Your task to perform on an android device: Open Google Image 0: 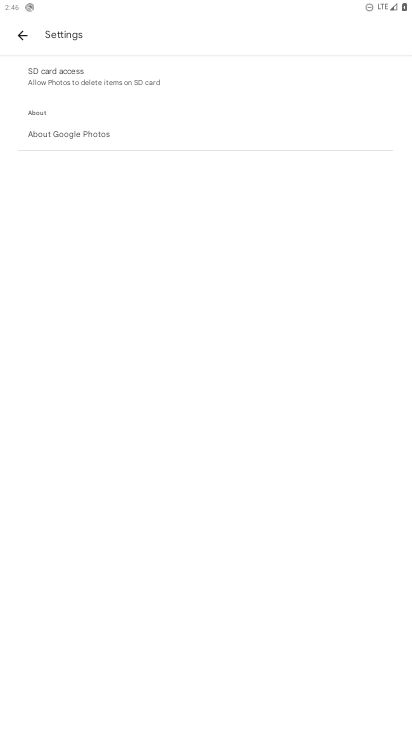
Step 0: press home button
Your task to perform on an android device: Open Google Image 1: 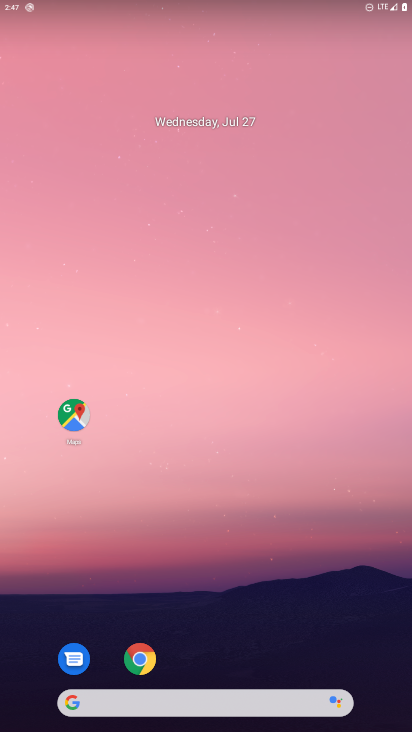
Step 1: drag from (248, 573) to (309, 333)
Your task to perform on an android device: Open Google Image 2: 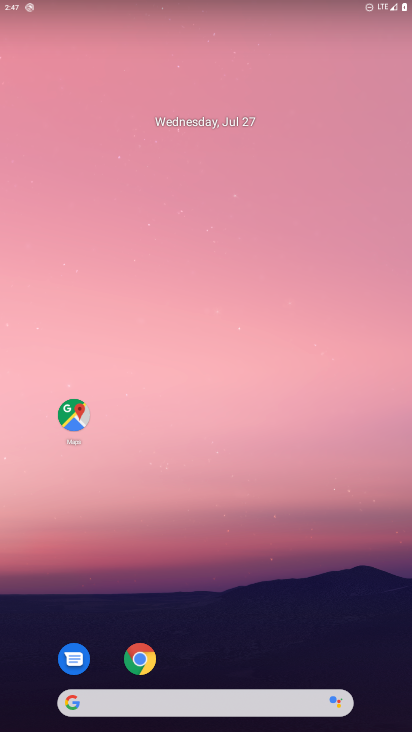
Step 2: drag from (243, 539) to (252, 227)
Your task to perform on an android device: Open Google Image 3: 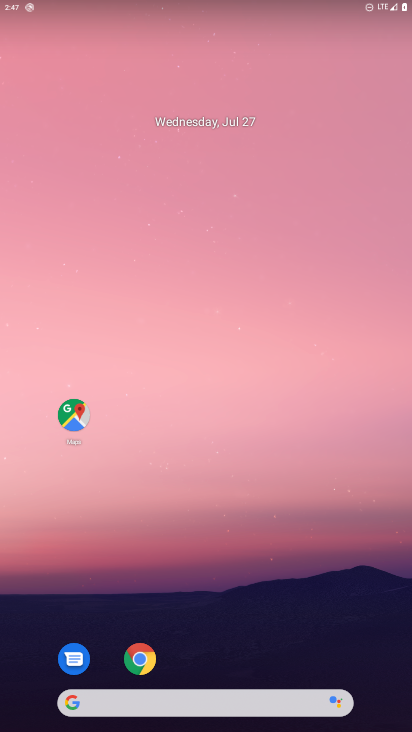
Step 3: drag from (178, 664) to (214, 203)
Your task to perform on an android device: Open Google Image 4: 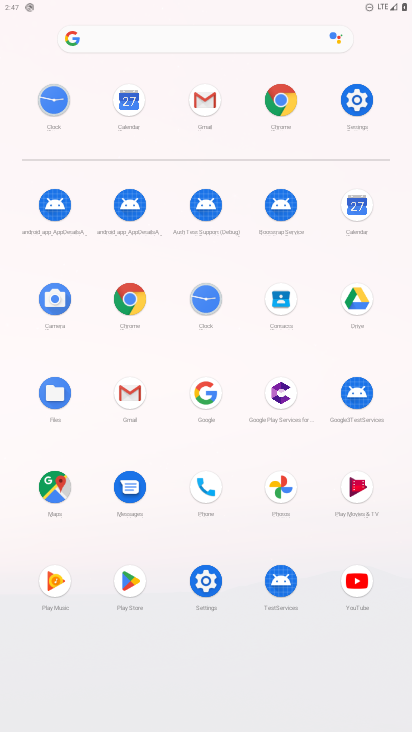
Step 4: click (217, 405)
Your task to perform on an android device: Open Google Image 5: 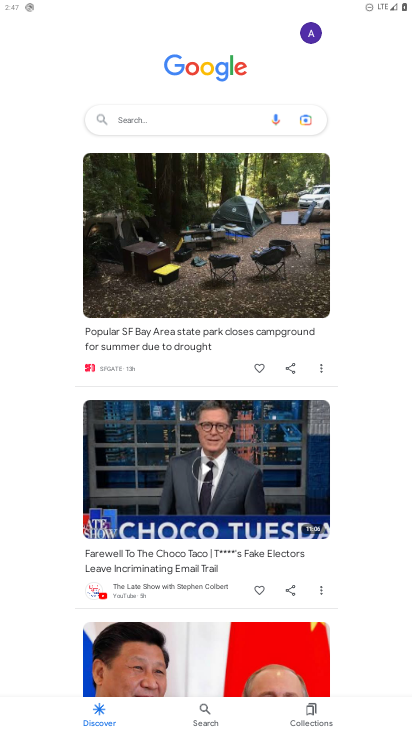
Step 5: drag from (346, 533) to (392, 294)
Your task to perform on an android device: Open Google Image 6: 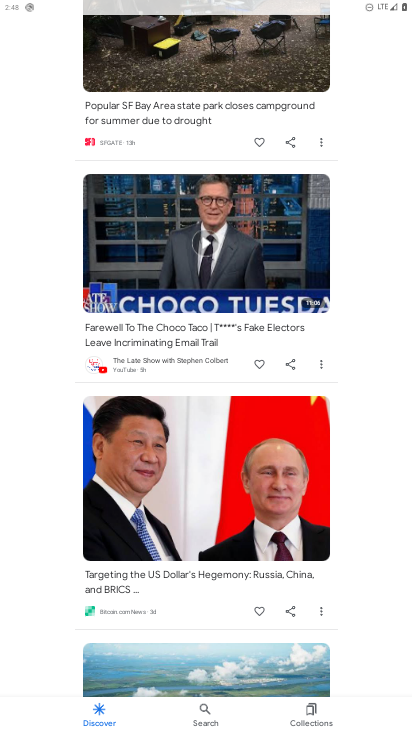
Step 6: drag from (199, 577) to (248, 355)
Your task to perform on an android device: Open Google Image 7: 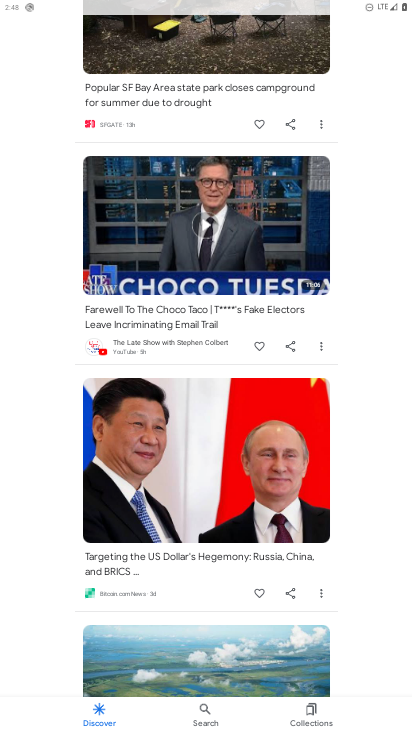
Step 7: drag from (244, 507) to (259, 443)
Your task to perform on an android device: Open Google Image 8: 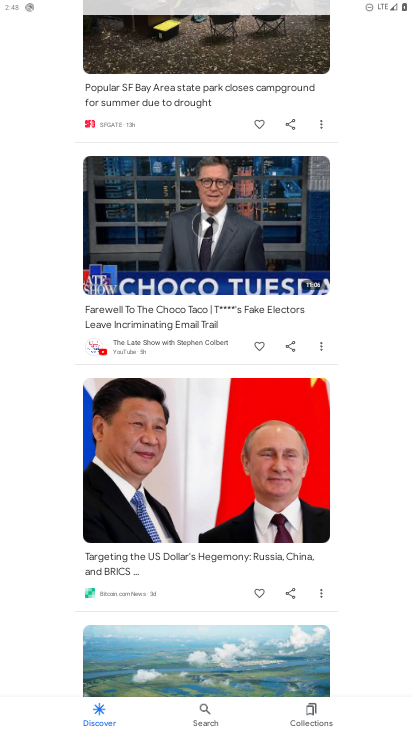
Step 8: drag from (215, 597) to (251, 368)
Your task to perform on an android device: Open Google Image 9: 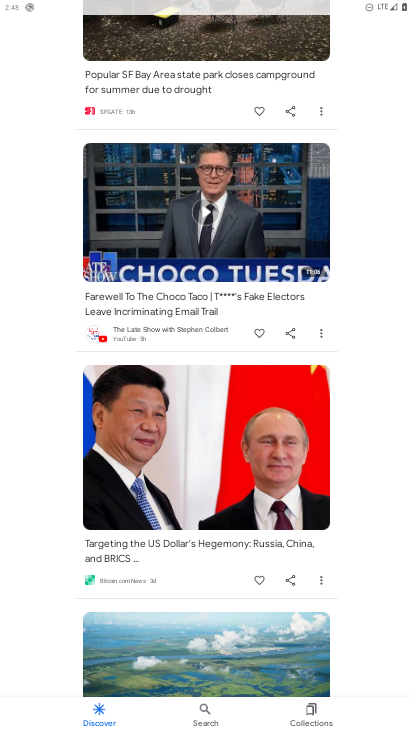
Step 9: drag from (207, 575) to (216, 345)
Your task to perform on an android device: Open Google Image 10: 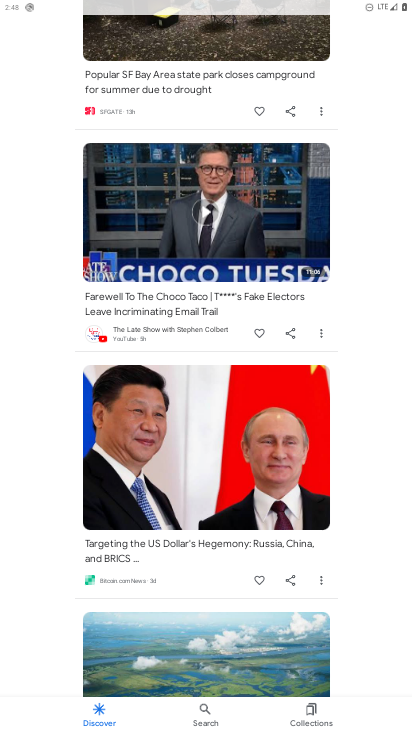
Step 10: drag from (358, 382) to (358, 183)
Your task to perform on an android device: Open Google Image 11: 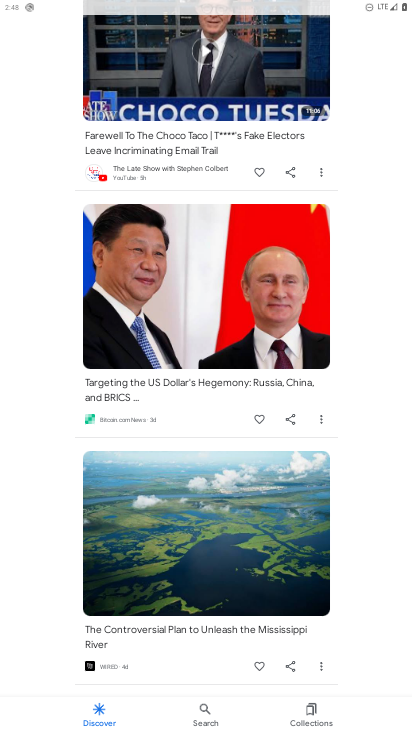
Step 11: drag from (363, 463) to (377, 340)
Your task to perform on an android device: Open Google Image 12: 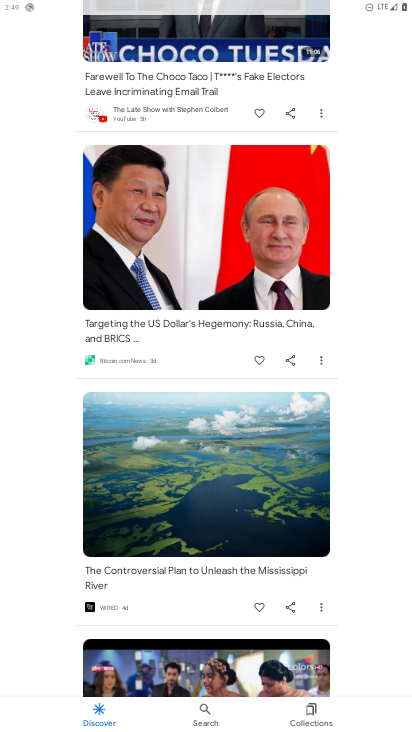
Step 12: drag from (359, 610) to (356, 319)
Your task to perform on an android device: Open Google Image 13: 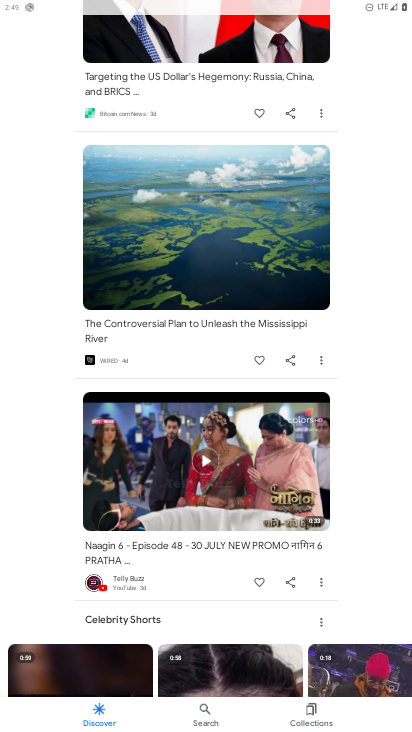
Step 13: drag from (354, 457) to (354, 335)
Your task to perform on an android device: Open Google Image 14: 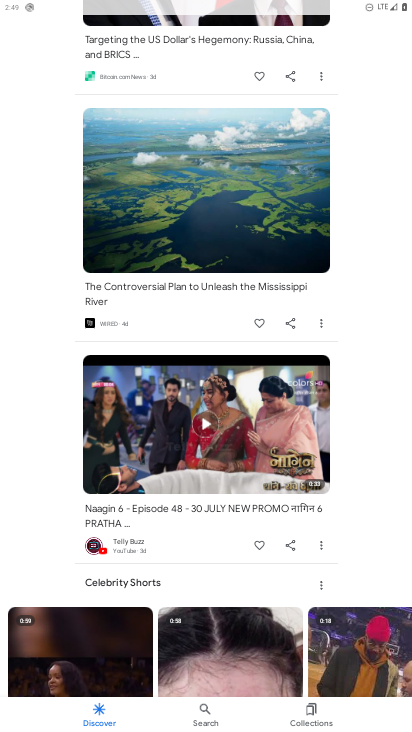
Step 14: drag from (350, 512) to (350, 321)
Your task to perform on an android device: Open Google Image 15: 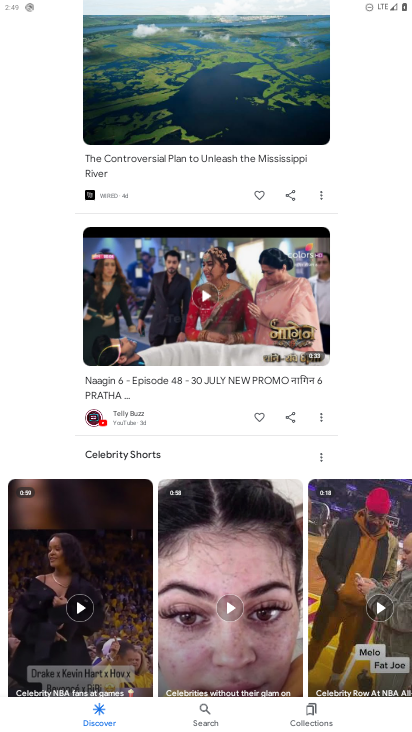
Step 15: drag from (349, 332) to (343, 580)
Your task to perform on an android device: Open Google Image 16: 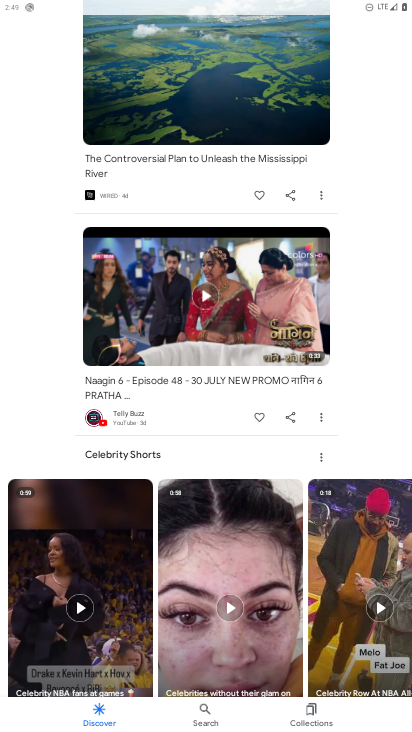
Step 16: drag from (367, 280) to (408, 614)
Your task to perform on an android device: Open Google Image 17: 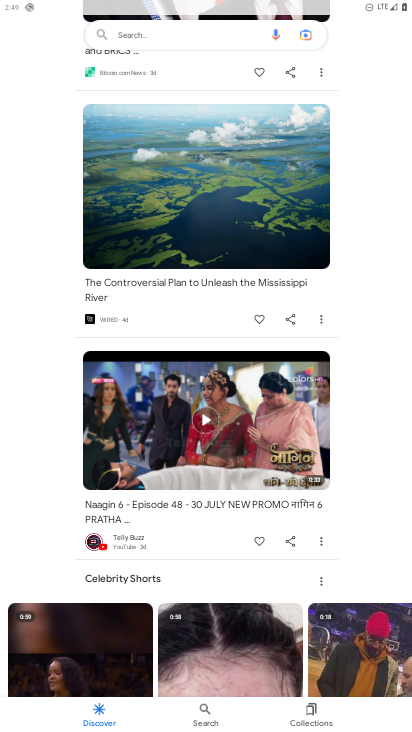
Step 17: drag from (358, 337) to (377, 574)
Your task to perform on an android device: Open Google Image 18: 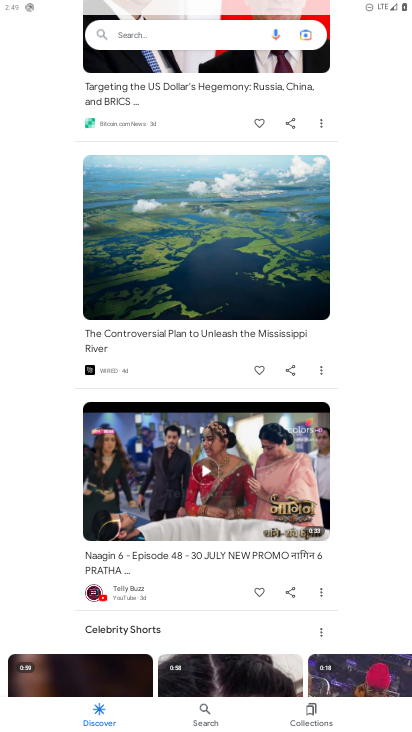
Step 18: drag from (348, 308) to (398, 510)
Your task to perform on an android device: Open Google Image 19: 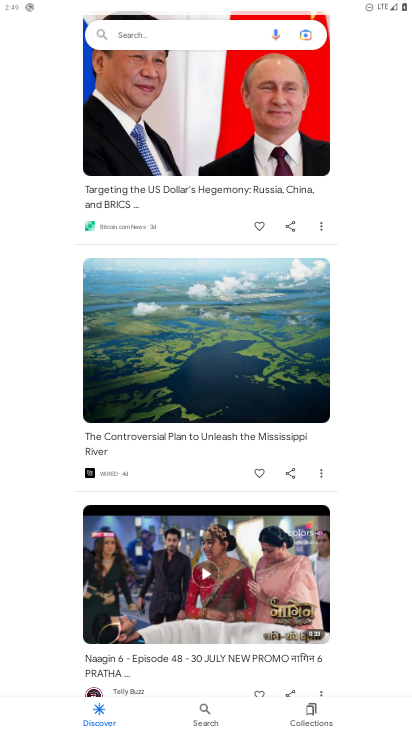
Step 19: drag from (357, 370) to (383, 582)
Your task to perform on an android device: Open Google Image 20: 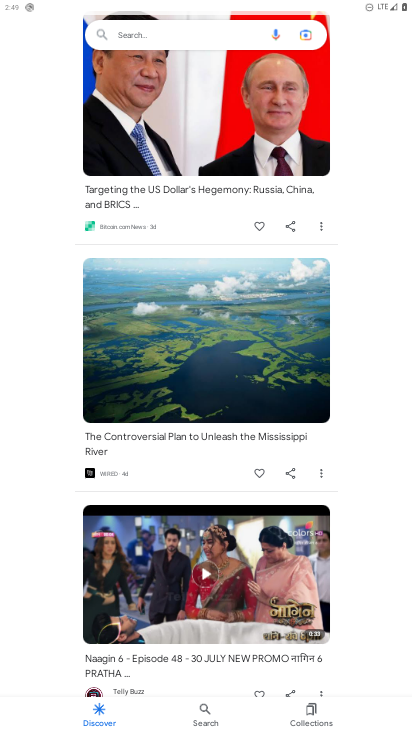
Step 20: drag from (371, 402) to (405, 606)
Your task to perform on an android device: Open Google Image 21: 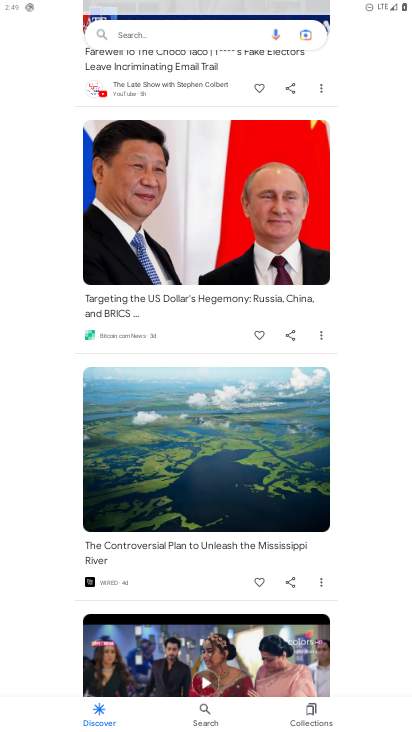
Step 21: drag from (374, 288) to (368, 588)
Your task to perform on an android device: Open Google Image 22: 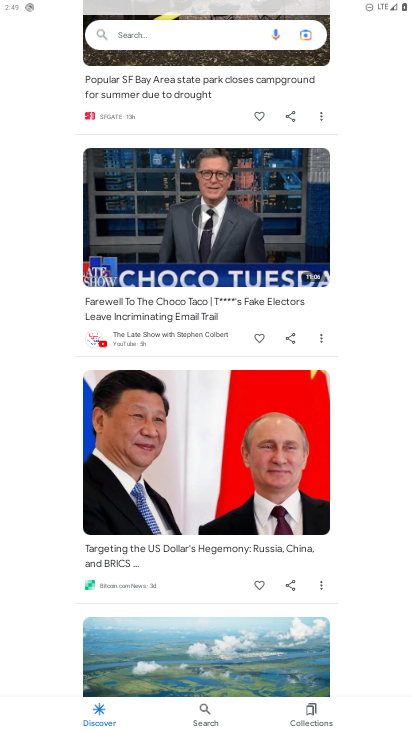
Step 22: drag from (370, 297) to (326, 639)
Your task to perform on an android device: Open Google Image 23: 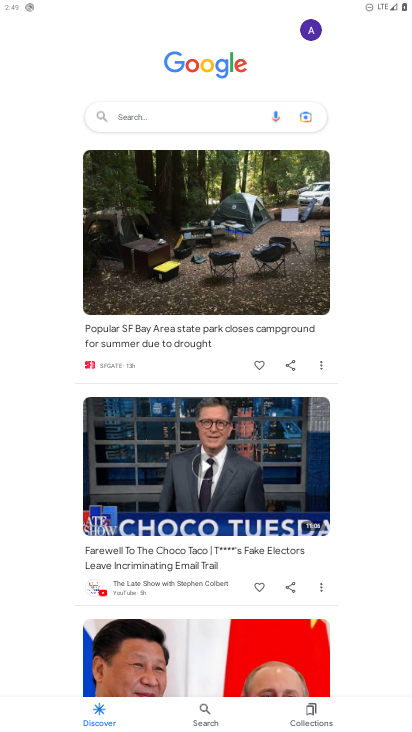
Step 23: drag from (379, 266) to (365, 555)
Your task to perform on an android device: Open Google Image 24: 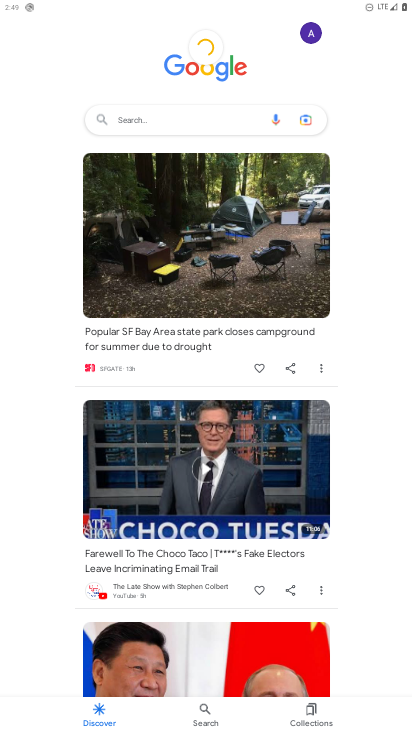
Step 24: drag from (378, 210) to (410, 656)
Your task to perform on an android device: Open Google Image 25: 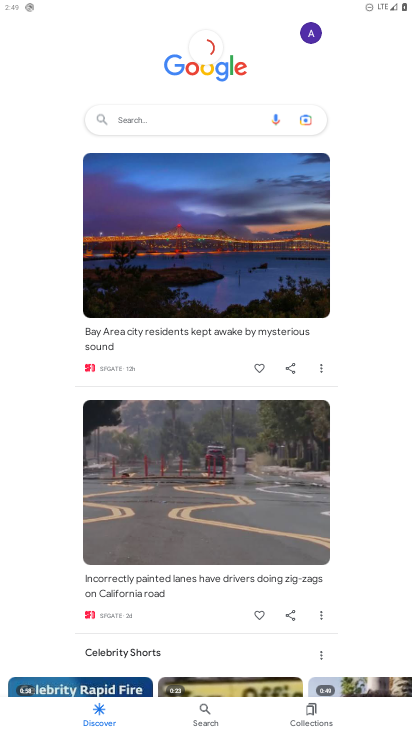
Step 25: click (159, 115)
Your task to perform on an android device: Open Google Image 26: 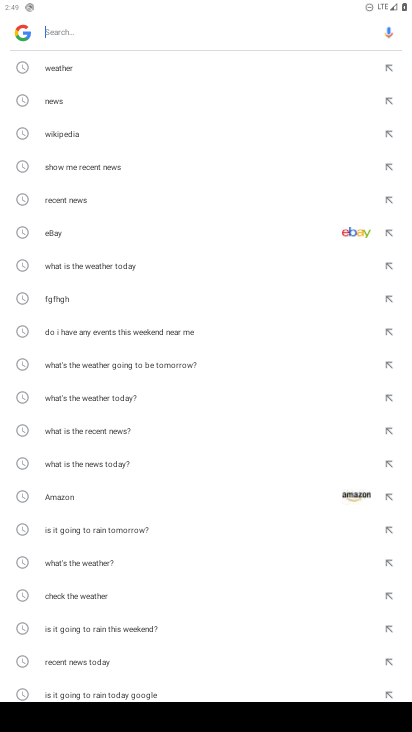
Step 26: type "goov"
Your task to perform on an android device: Open Google Image 27: 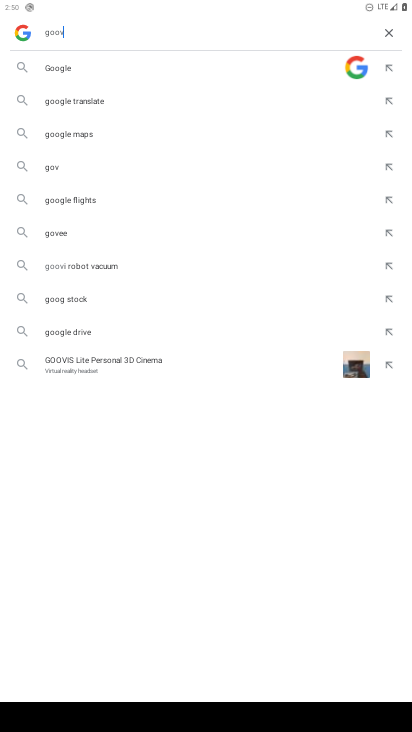
Step 27: click (179, 69)
Your task to perform on an android device: Open Google Image 28: 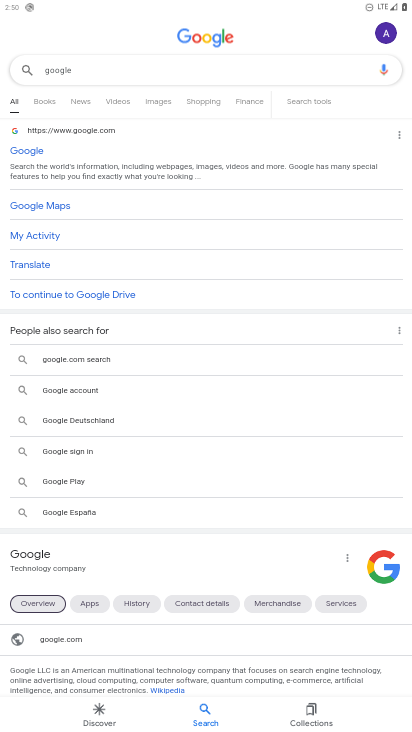
Step 28: click (40, 153)
Your task to perform on an android device: Open Google Image 29: 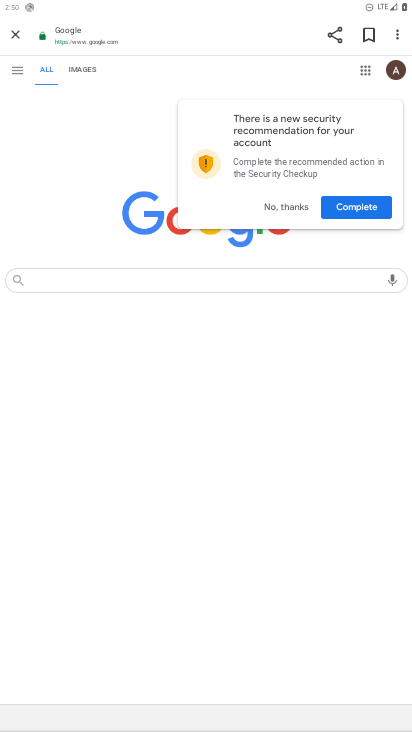
Step 29: task complete